Your task to perform on an android device: turn on sleep mode Image 0: 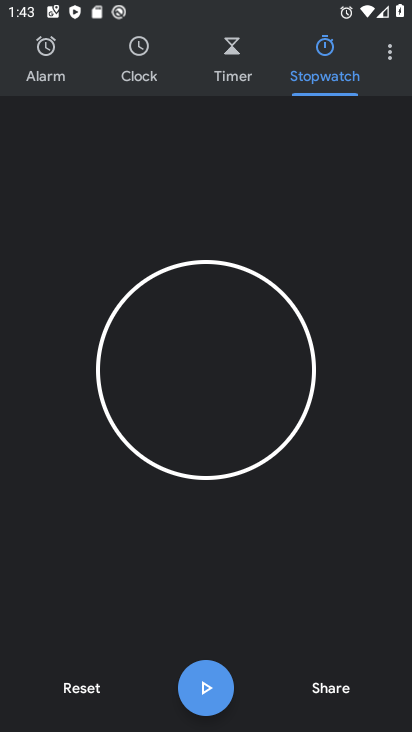
Step 0: press home button
Your task to perform on an android device: turn on sleep mode Image 1: 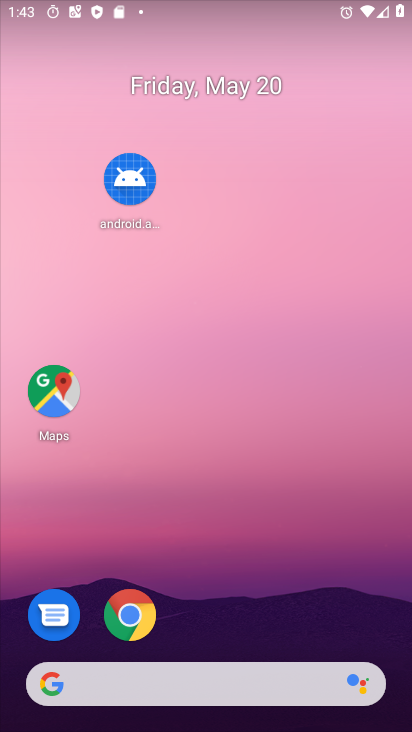
Step 1: drag from (309, 592) to (253, 142)
Your task to perform on an android device: turn on sleep mode Image 2: 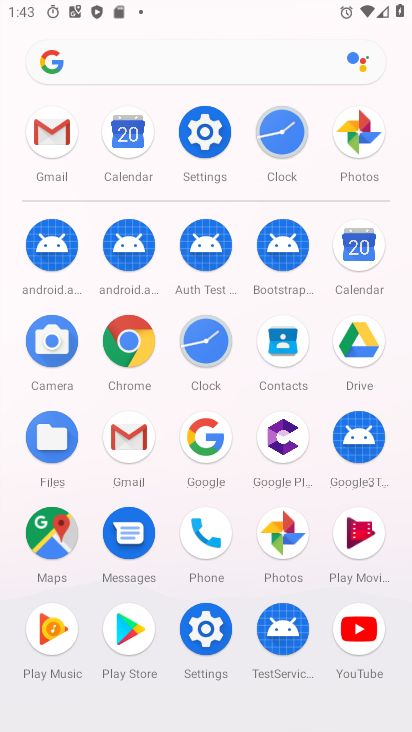
Step 2: click (205, 323)
Your task to perform on an android device: turn on sleep mode Image 3: 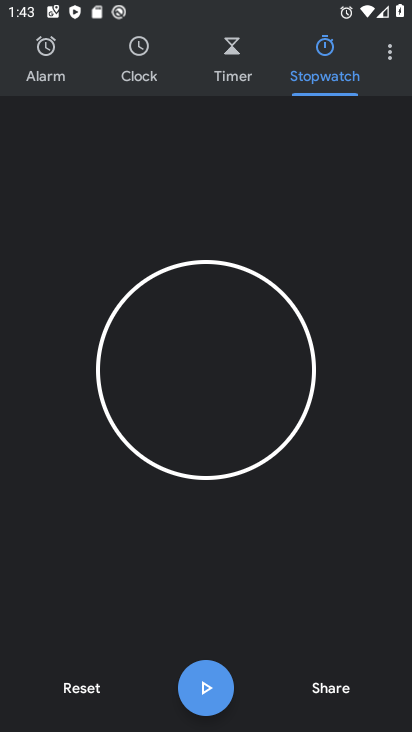
Step 3: task complete